Your task to perform on an android device: Add "usb-a" to the cart on bestbuy, then select checkout. Image 0: 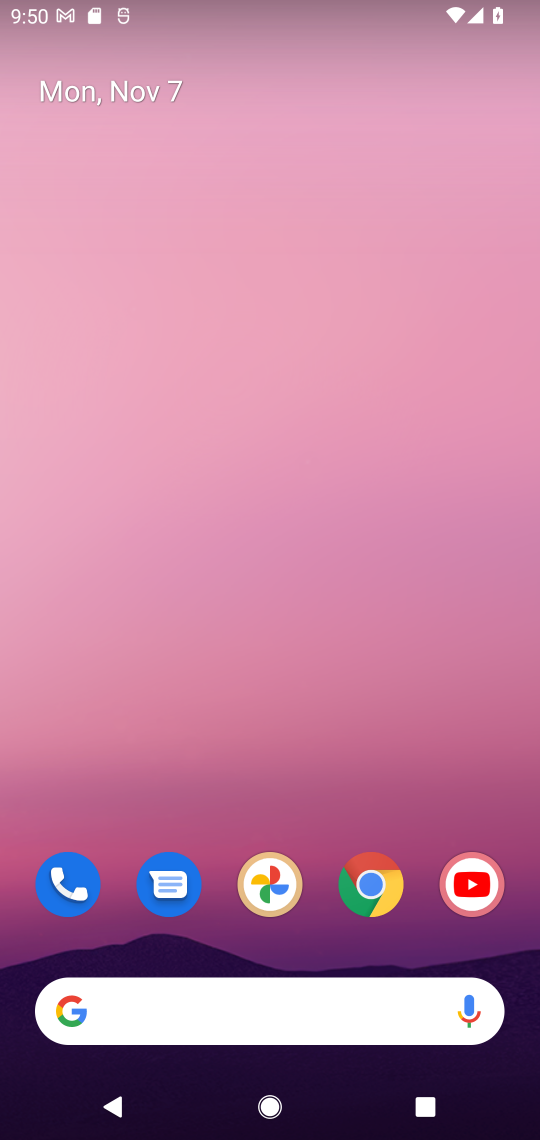
Step 0: click (367, 876)
Your task to perform on an android device: Add "usb-a" to the cart on bestbuy, then select checkout. Image 1: 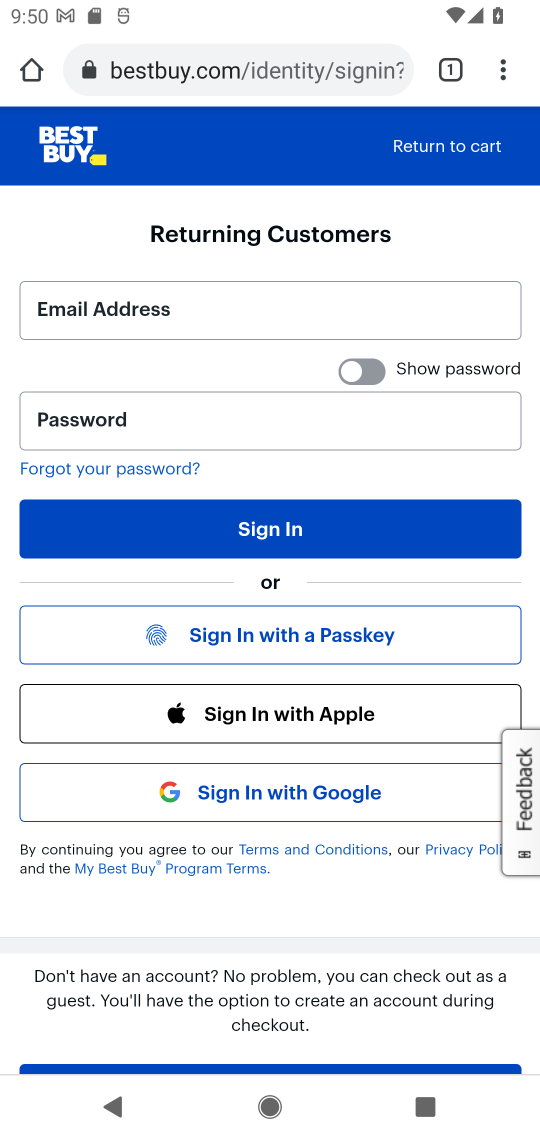
Step 1: press back button
Your task to perform on an android device: Add "usb-a" to the cart on bestbuy, then select checkout. Image 2: 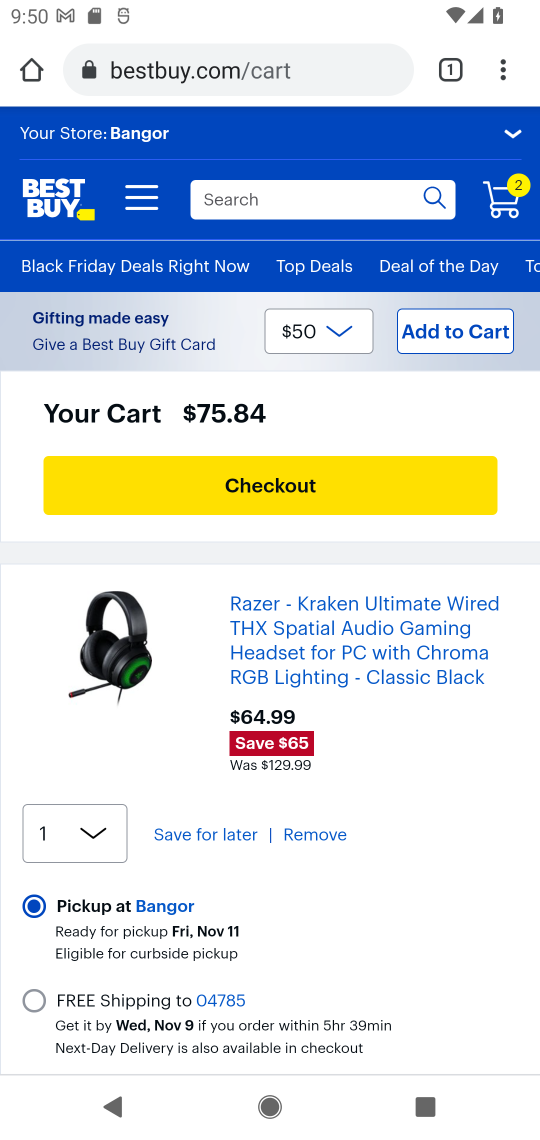
Step 2: click (354, 196)
Your task to perform on an android device: Add "usb-a" to the cart on bestbuy, then select checkout. Image 3: 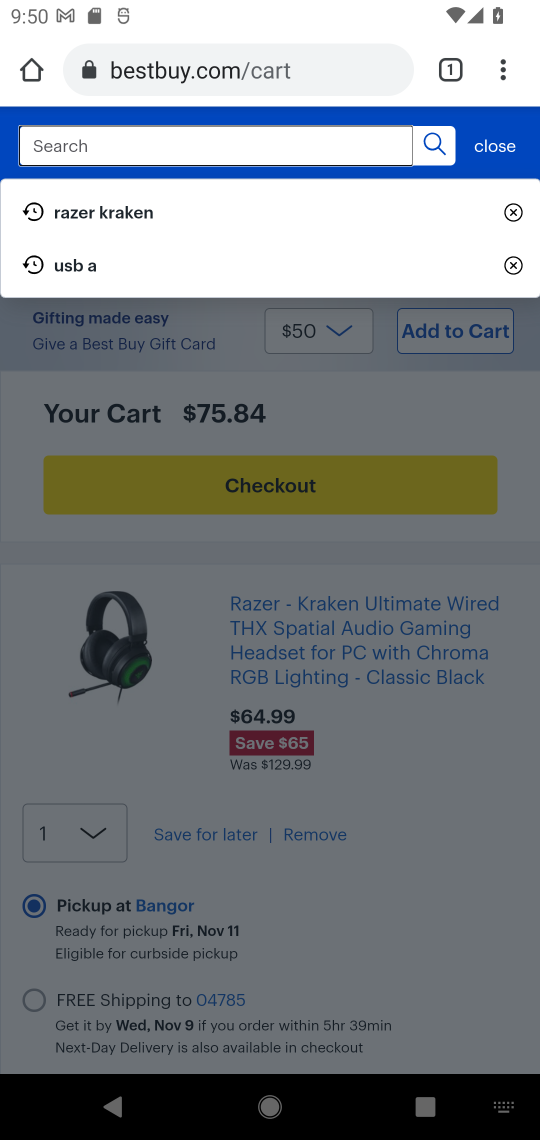
Step 3: type "usb-a"
Your task to perform on an android device: Add "usb-a" to the cart on bestbuy, then select checkout. Image 4: 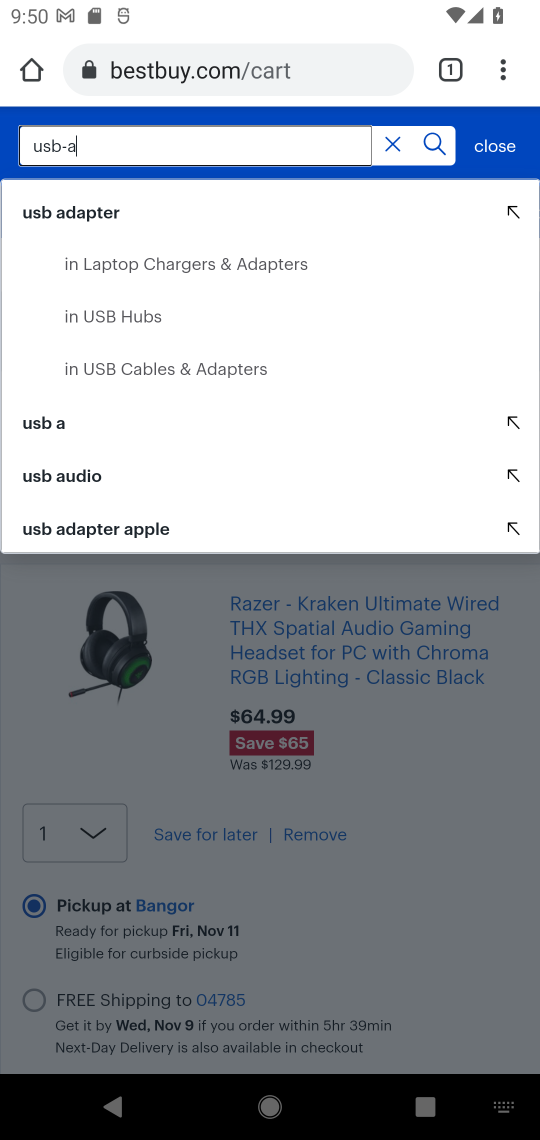
Step 4: click (50, 419)
Your task to perform on an android device: Add "usb-a" to the cart on bestbuy, then select checkout. Image 5: 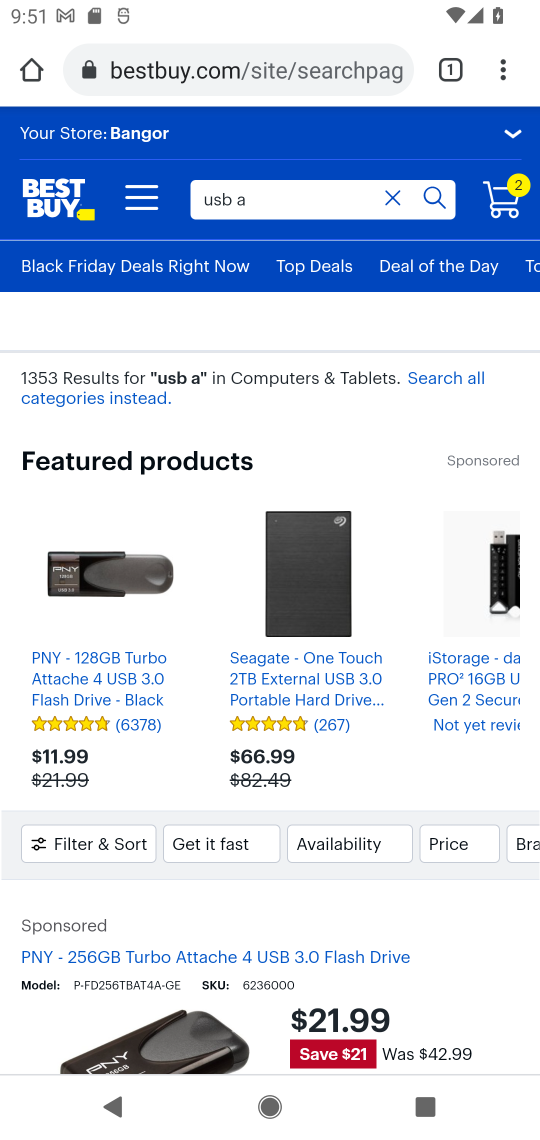
Step 5: drag from (412, 944) to (417, 559)
Your task to perform on an android device: Add "usb-a" to the cart on bestbuy, then select checkout. Image 6: 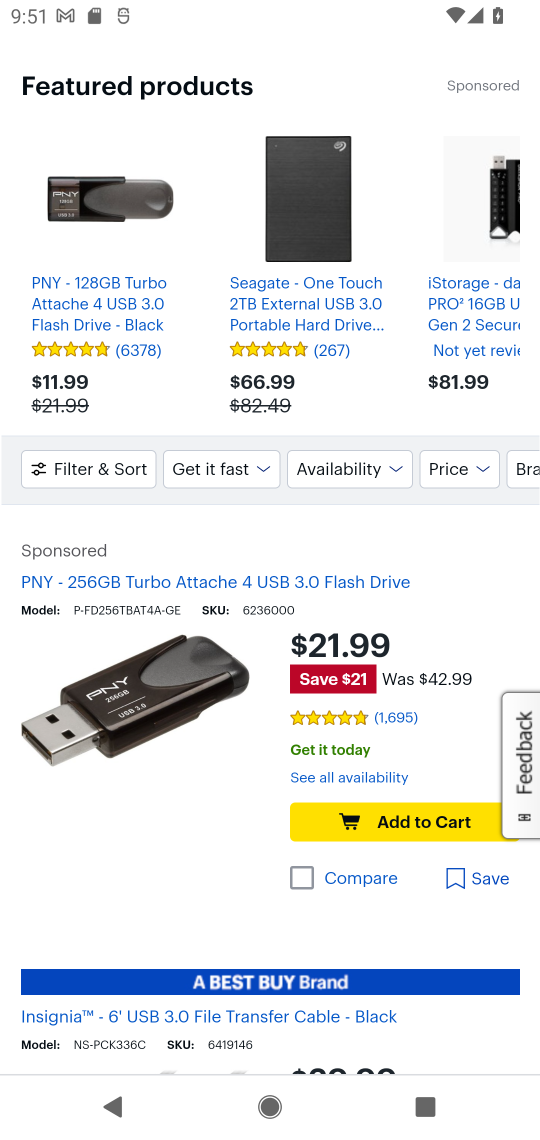
Step 6: drag from (407, 938) to (398, 440)
Your task to perform on an android device: Add "usb-a" to the cart on bestbuy, then select checkout. Image 7: 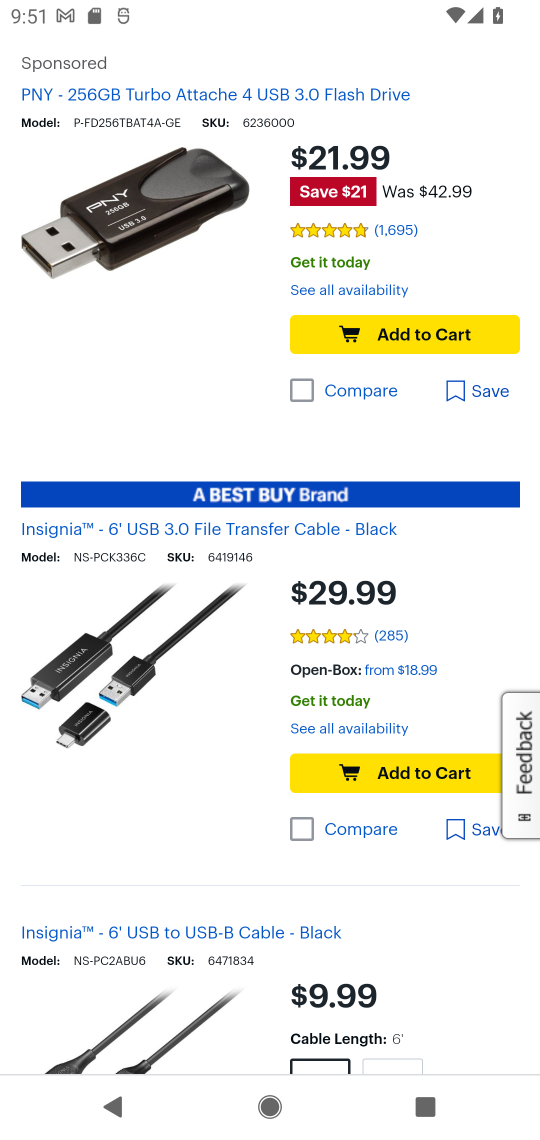
Step 7: drag from (382, 920) to (461, 421)
Your task to perform on an android device: Add "usb-a" to the cart on bestbuy, then select checkout. Image 8: 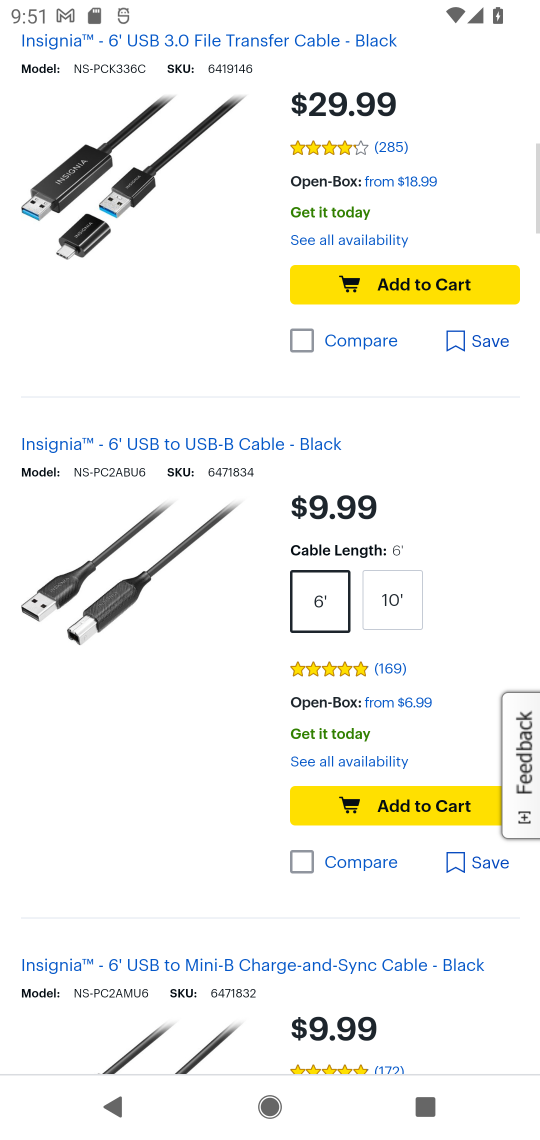
Step 8: drag from (232, 910) to (322, 389)
Your task to perform on an android device: Add "usb-a" to the cart on bestbuy, then select checkout. Image 9: 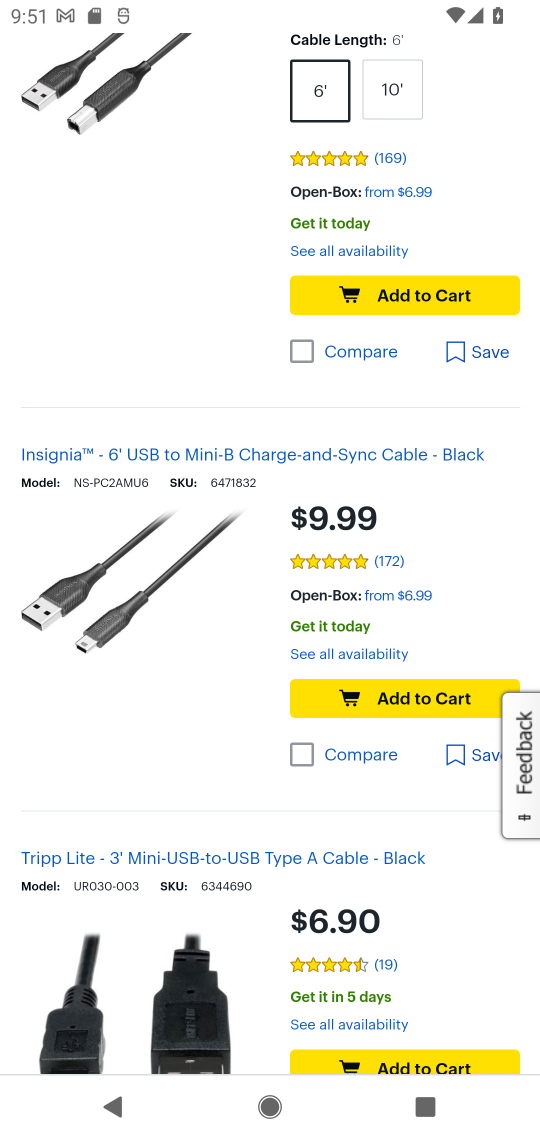
Step 9: drag from (200, 982) to (258, 473)
Your task to perform on an android device: Add "usb-a" to the cart on bestbuy, then select checkout. Image 10: 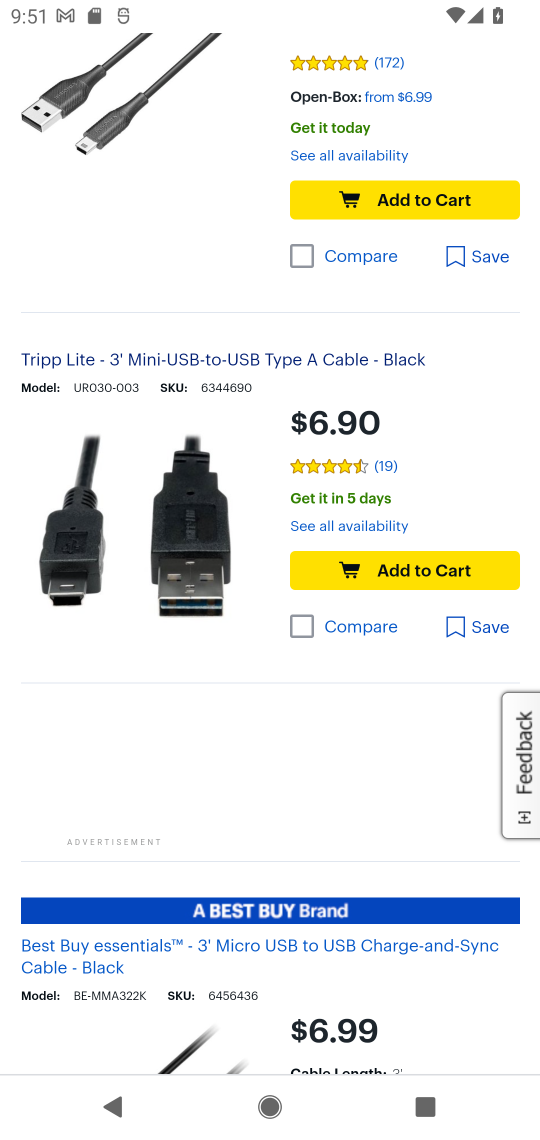
Step 10: click (131, 560)
Your task to perform on an android device: Add "usb-a" to the cart on bestbuy, then select checkout. Image 11: 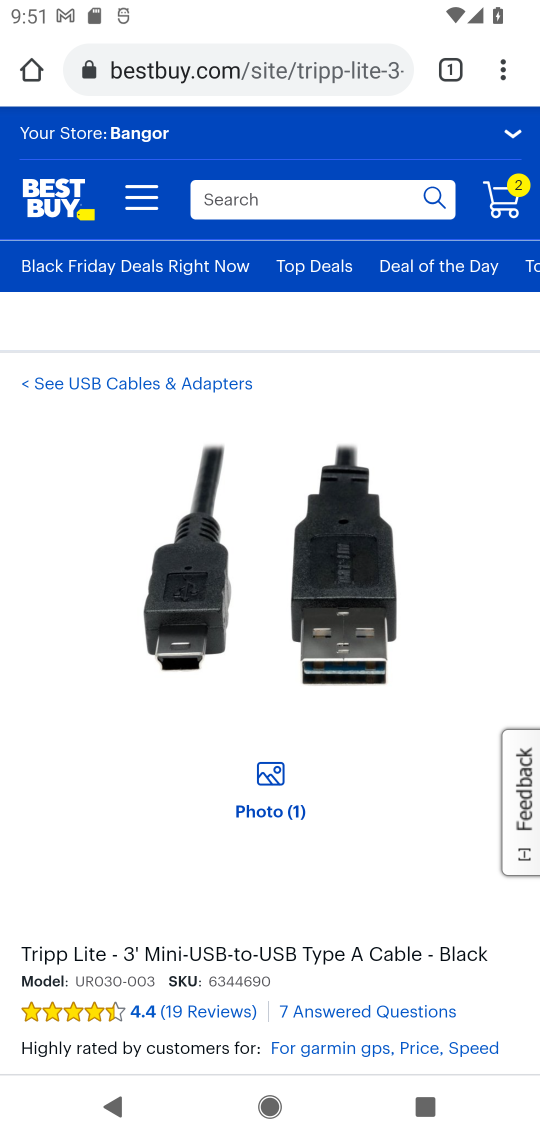
Step 11: drag from (408, 753) to (417, 316)
Your task to perform on an android device: Add "usb-a" to the cart on bestbuy, then select checkout. Image 12: 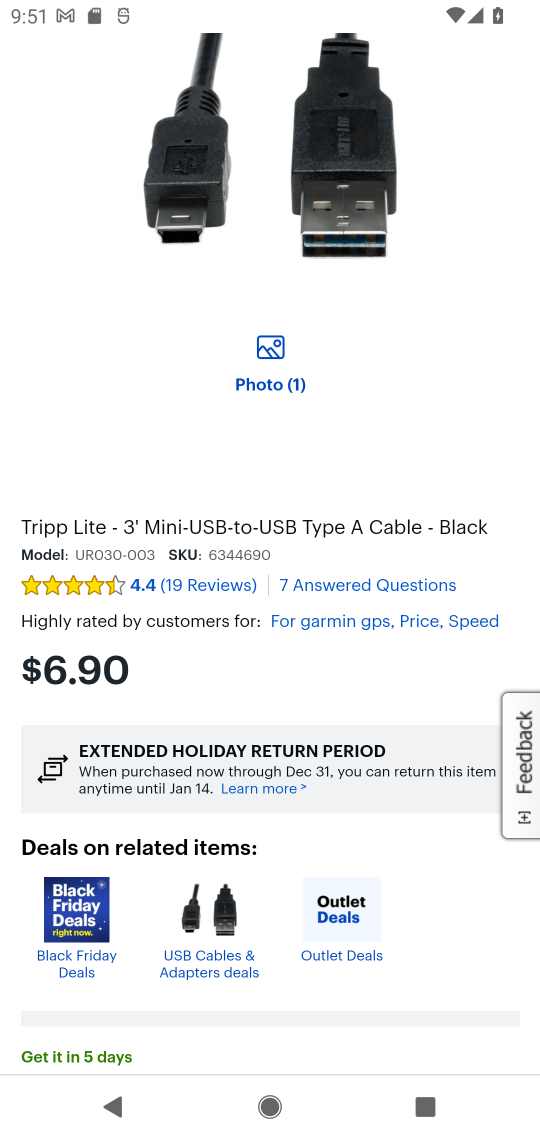
Step 12: drag from (499, 894) to (518, 352)
Your task to perform on an android device: Add "usb-a" to the cart on bestbuy, then select checkout. Image 13: 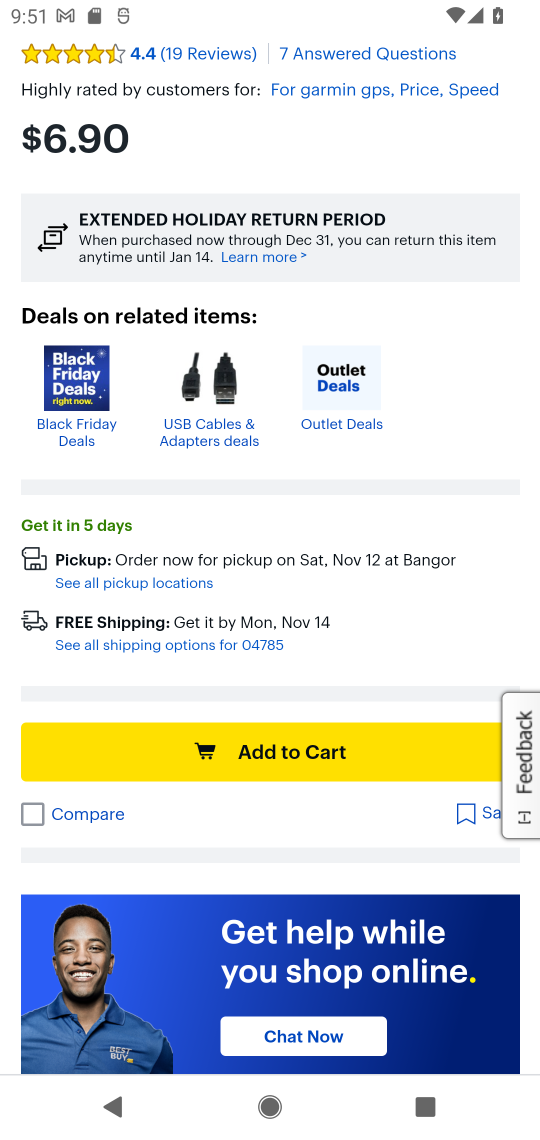
Step 13: click (282, 751)
Your task to perform on an android device: Add "usb-a" to the cart on bestbuy, then select checkout. Image 14: 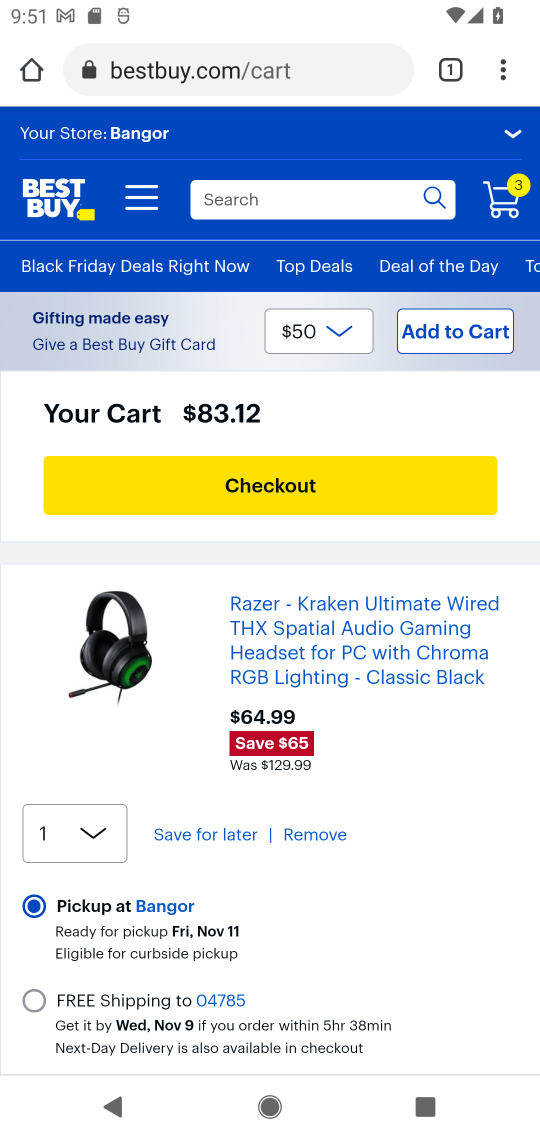
Step 14: click (317, 488)
Your task to perform on an android device: Add "usb-a" to the cart on bestbuy, then select checkout. Image 15: 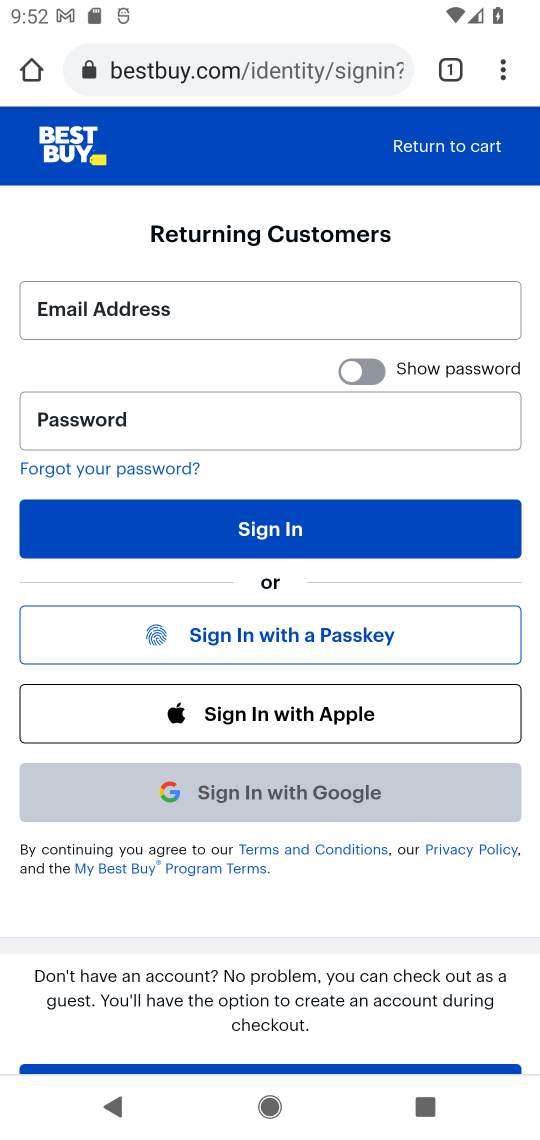
Step 15: task complete